Your task to perform on an android device: delete a single message in the gmail app Image 0: 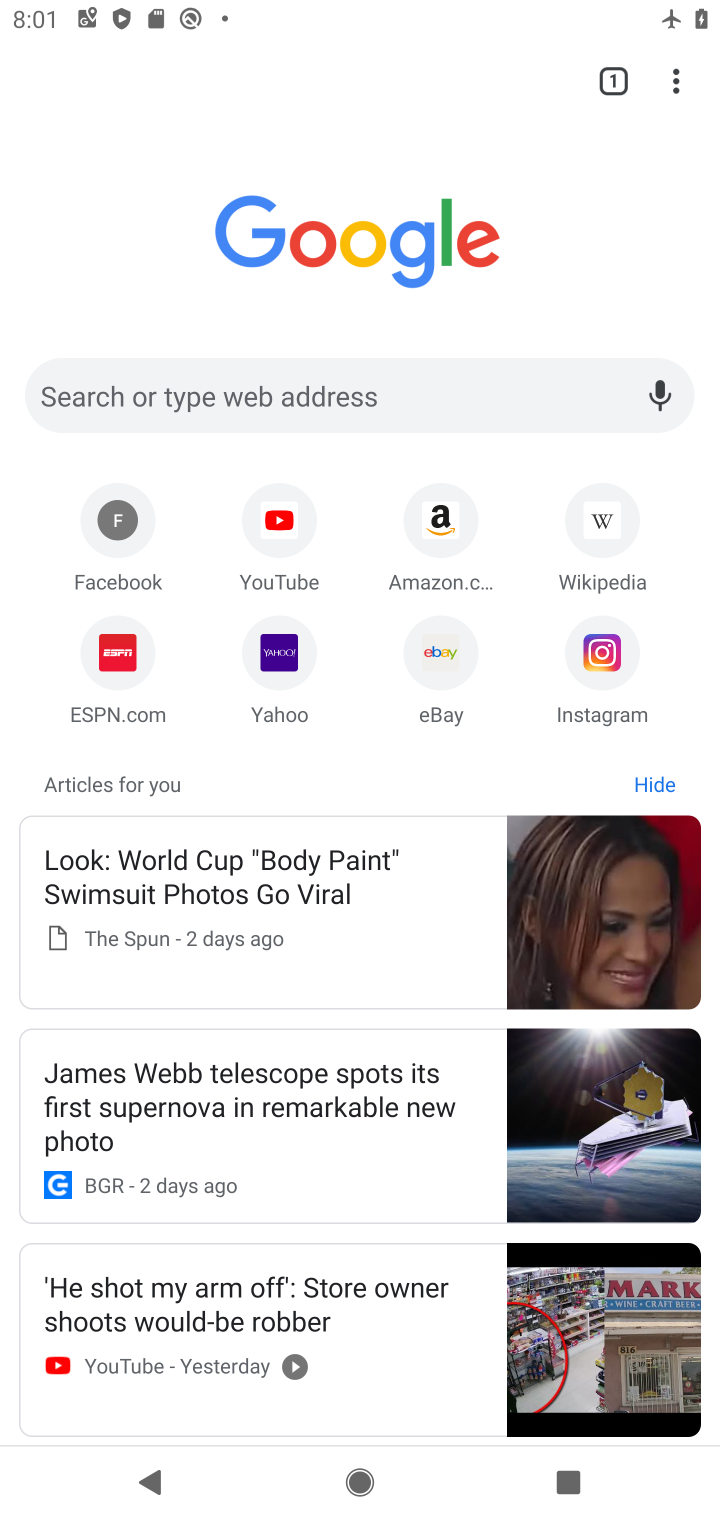
Step 0: press home button
Your task to perform on an android device: delete a single message in the gmail app Image 1: 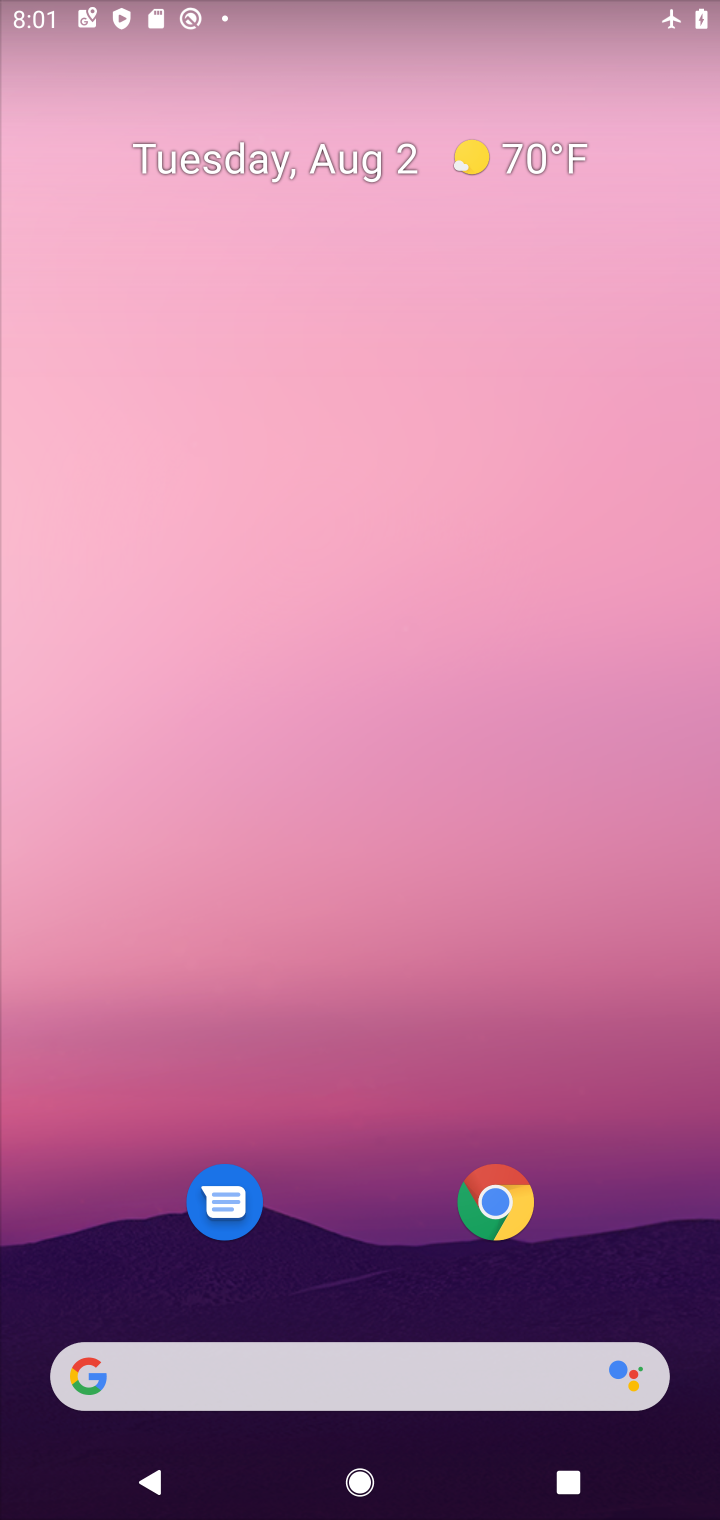
Step 1: drag from (371, 1204) to (352, 108)
Your task to perform on an android device: delete a single message in the gmail app Image 2: 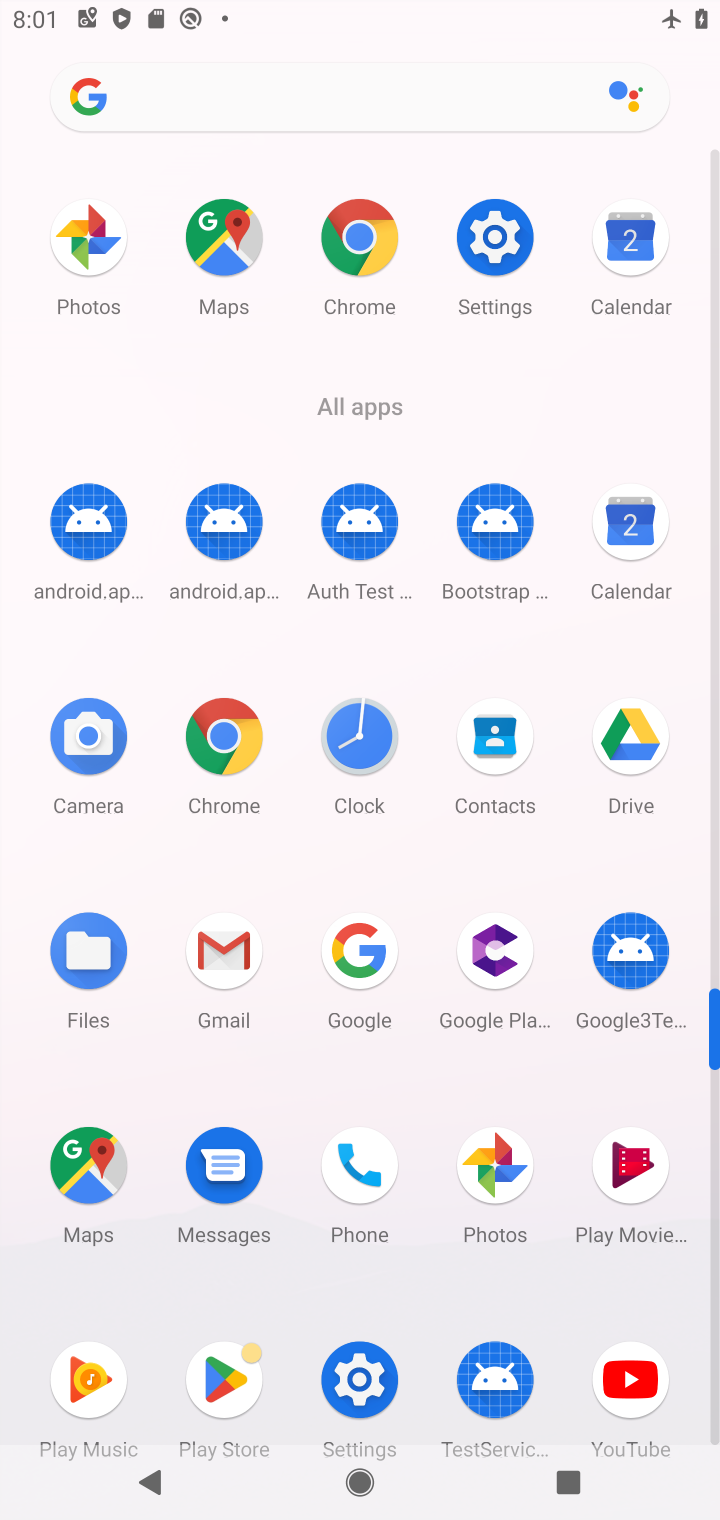
Step 2: click (215, 955)
Your task to perform on an android device: delete a single message in the gmail app Image 3: 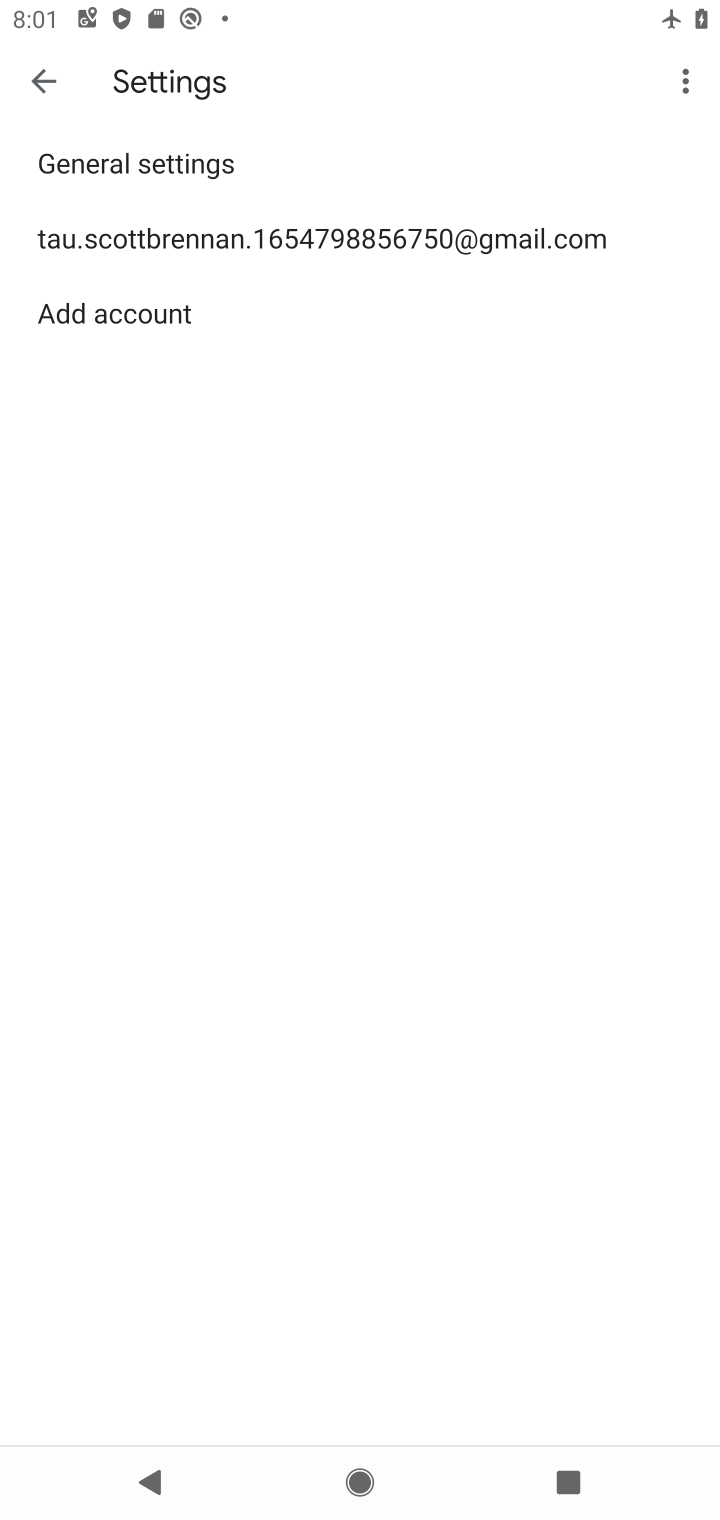
Step 3: click (44, 77)
Your task to perform on an android device: delete a single message in the gmail app Image 4: 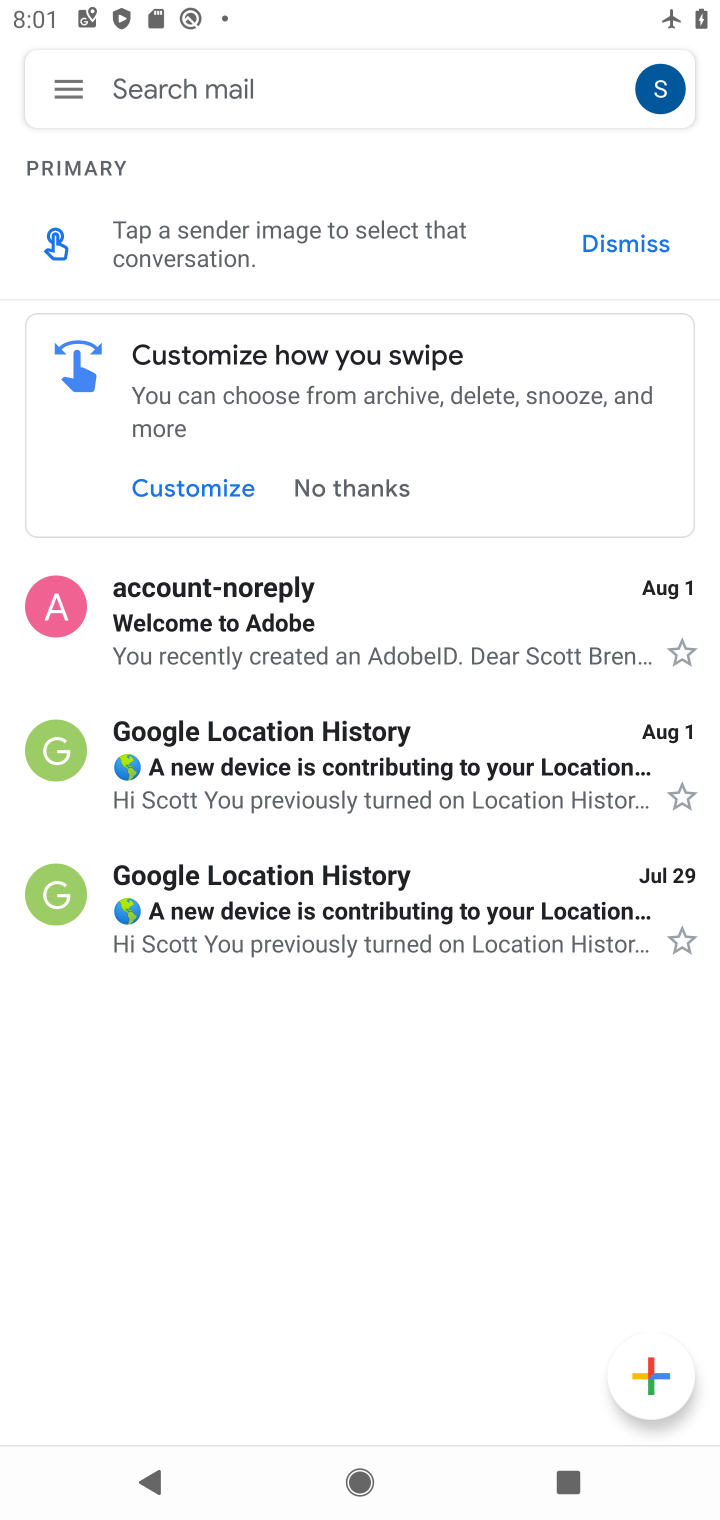
Step 4: click (254, 642)
Your task to perform on an android device: delete a single message in the gmail app Image 5: 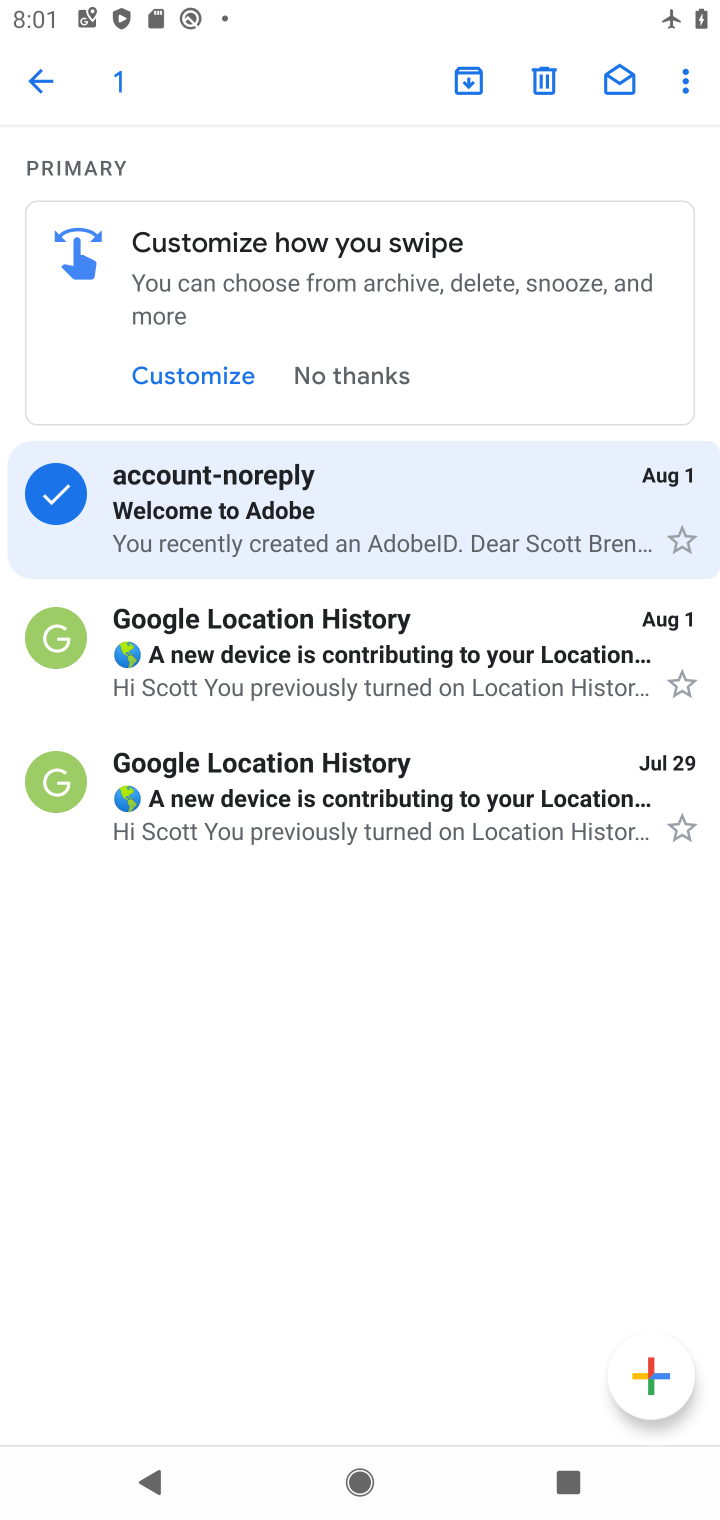
Step 5: click (534, 74)
Your task to perform on an android device: delete a single message in the gmail app Image 6: 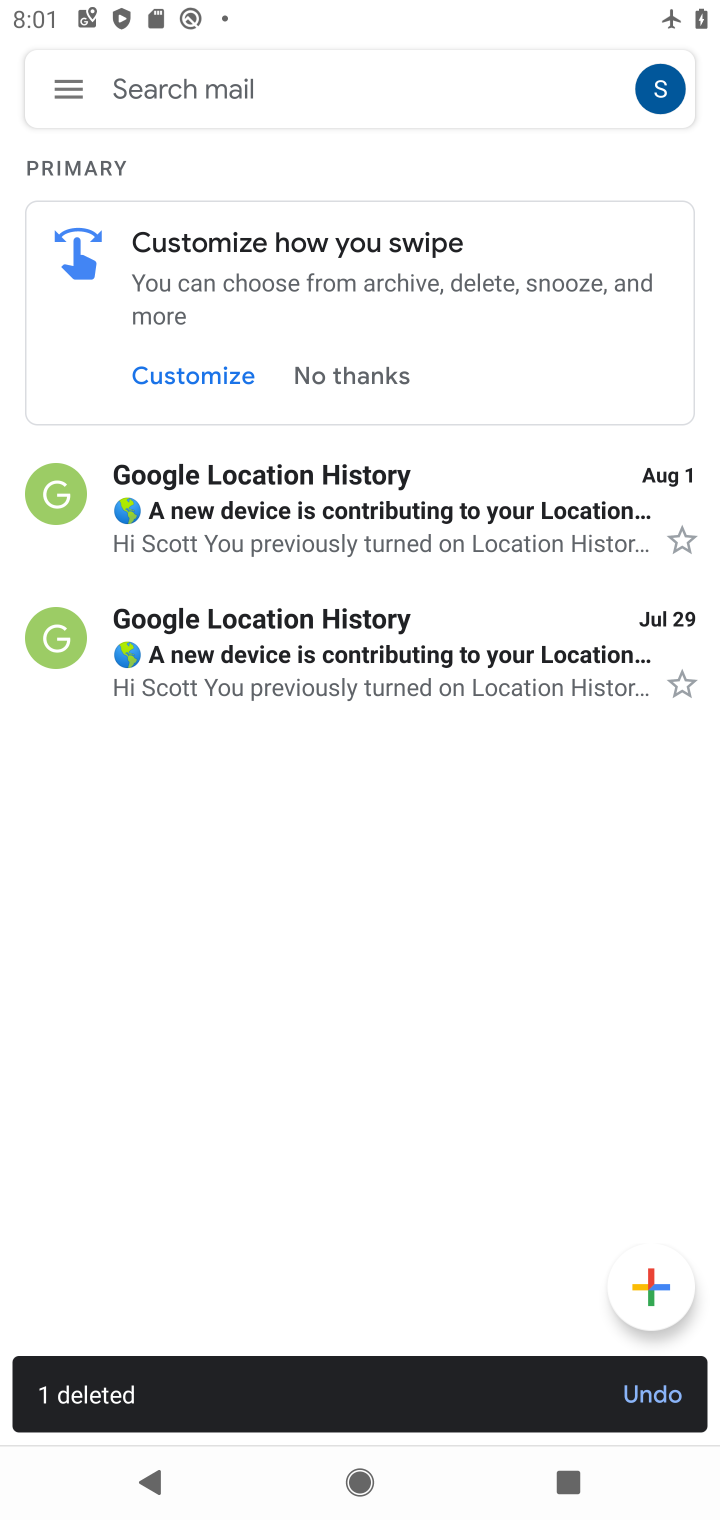
Step 6: task complete